Your task to perform on an android device: Open Youtube and go to "Your channel" Image 0: 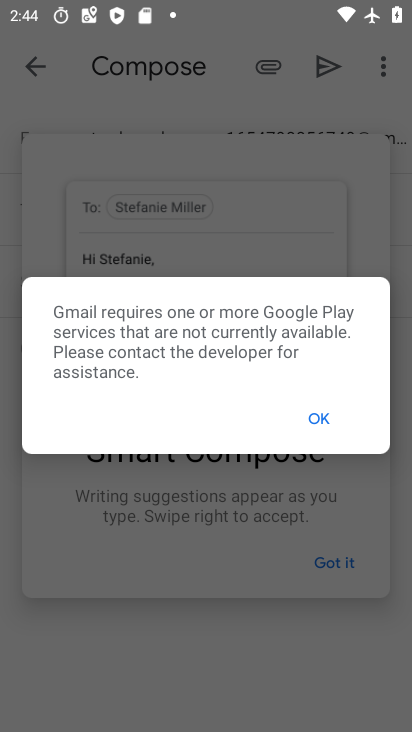
Step 0: press home button
Your task to perform on an android device: Open Youtube and go to "Your channel" Image 1: 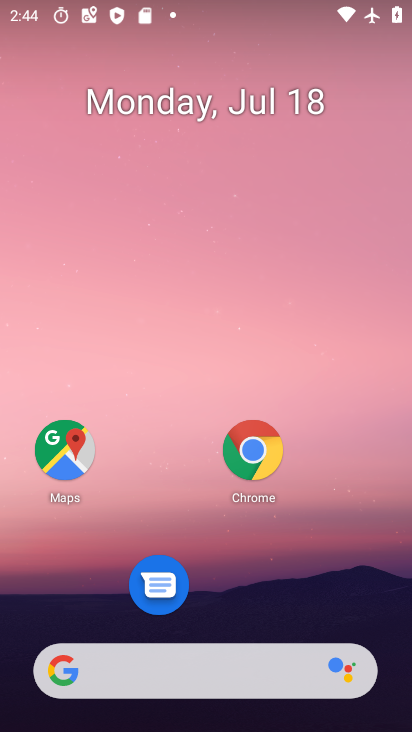
Step 1: drag from (152, 650) to (260, 20)
Your task to perform on an android device: Open Youtube and go to "Your channel" Image 2: 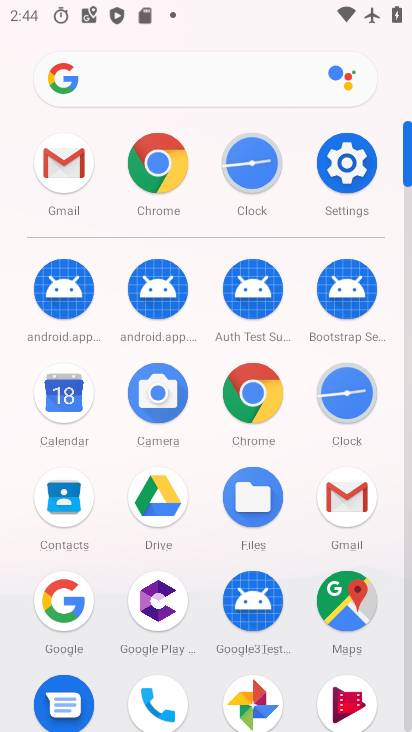
Step 2: drag from (309, 634) to (374, 199)
Your task to perform on an android device: Open Youtube and go to "Your channel" Image 3: 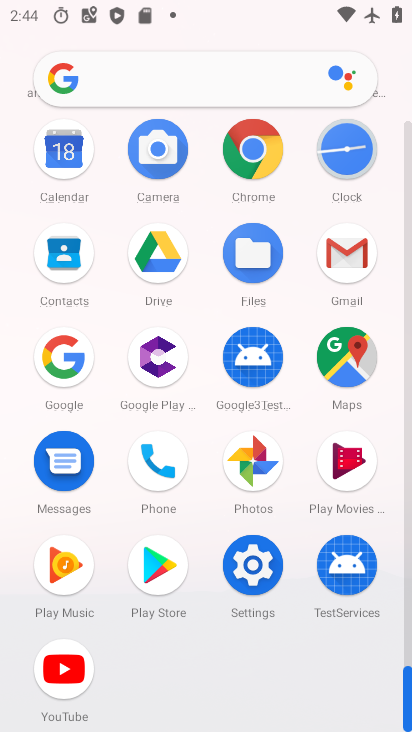
Step 3: click (54, 676)
Your task to perform on an android device: Open Youtube and go to "Your channel" Image 4: 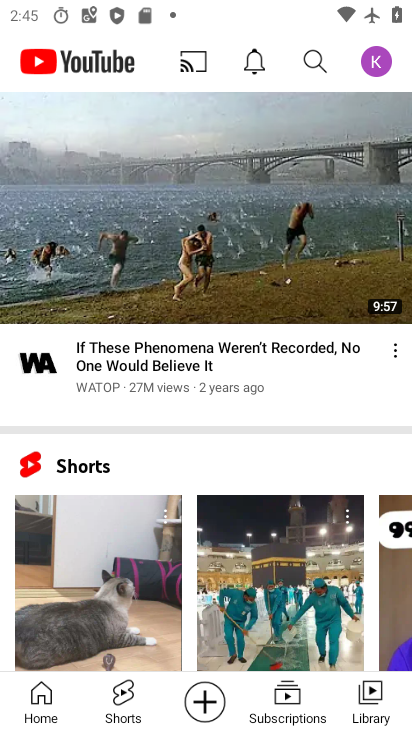
Step 4: click (379, 64)
Your task to perform on an android device: Open Youtube and go to "Your channel" Image 5: 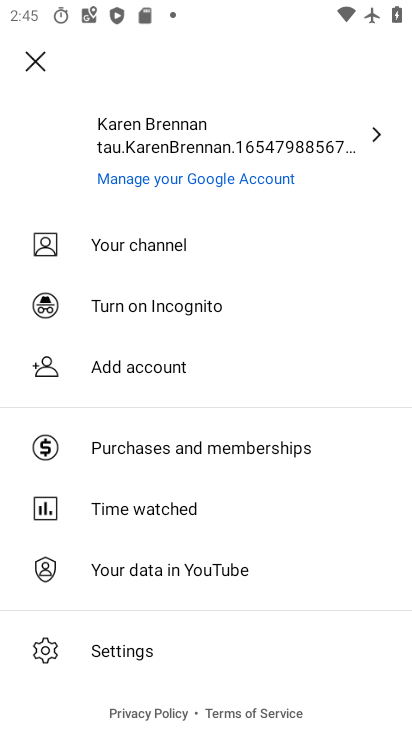
Step 5: click (379, 65)
Your task to perform on an android device: Open Youtube and go to "Your channel" Image 6: 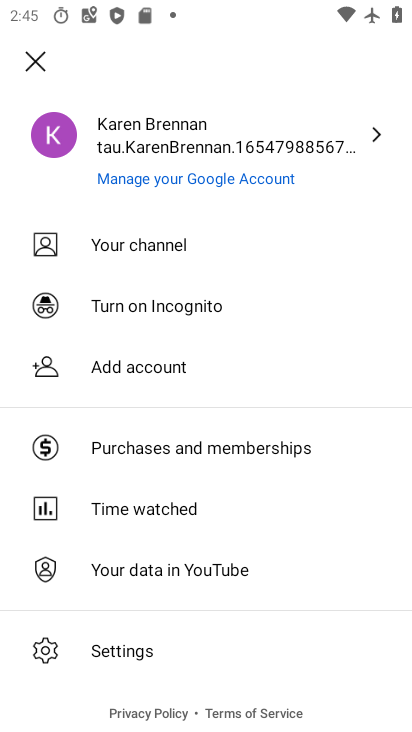
Step 6: click (168, 241)
Your task to perform on an android device: Open Youtube and go to "Your channel" Image 7: 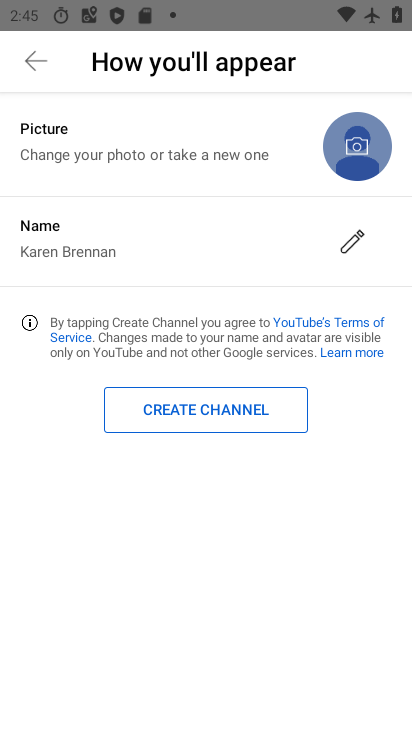
Step 7: task complete